Your task to perform on an android device: change the clock style Image 0: 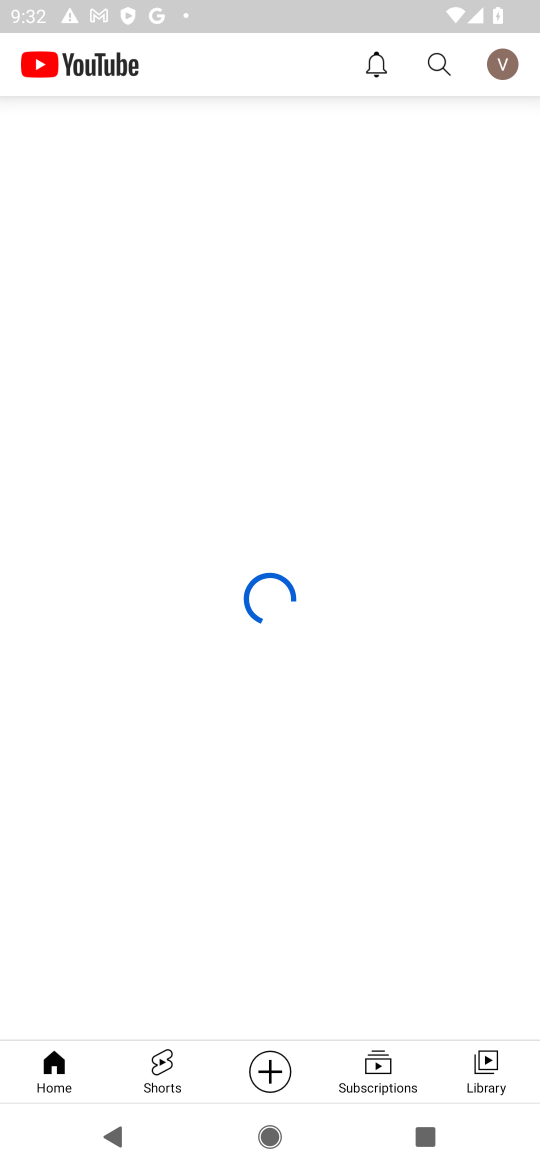
Step 0: press home button
Your task to perform on an android device: change the clock style Image 1: 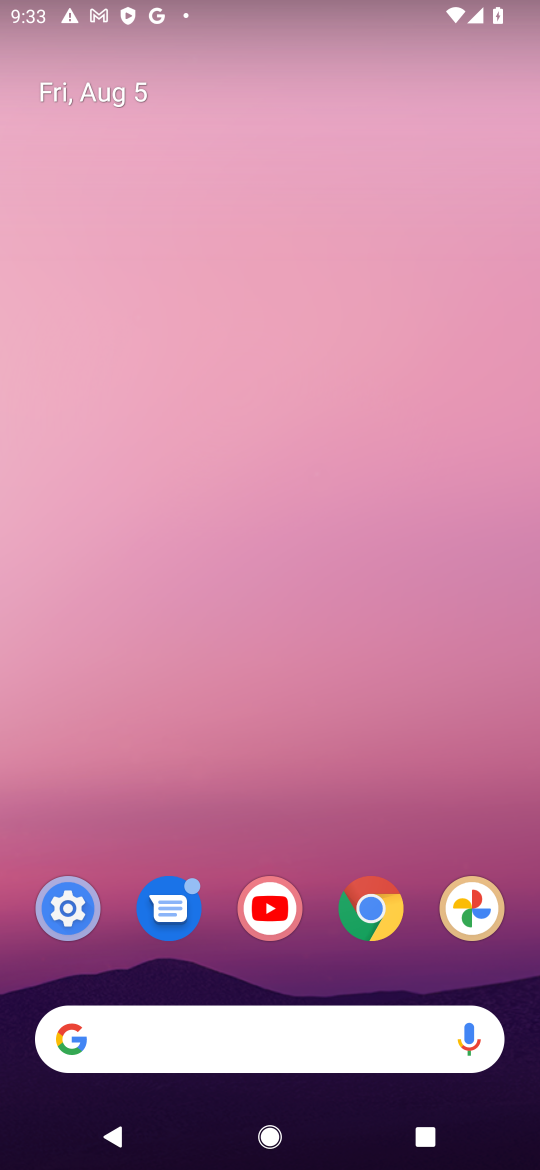
Step 1: drag from (293, 799) to (316, 9)
Your task to perform on an android device: change the clock style Image 2: 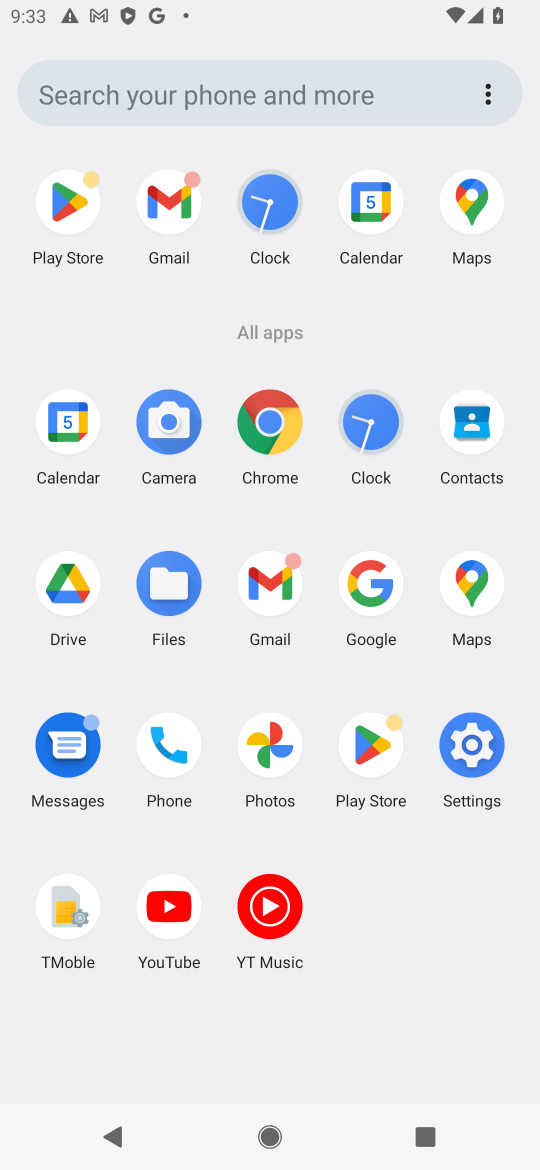
Step 2: click (371, 422)
Your task to perform on an android device: change the clock style Image 3: 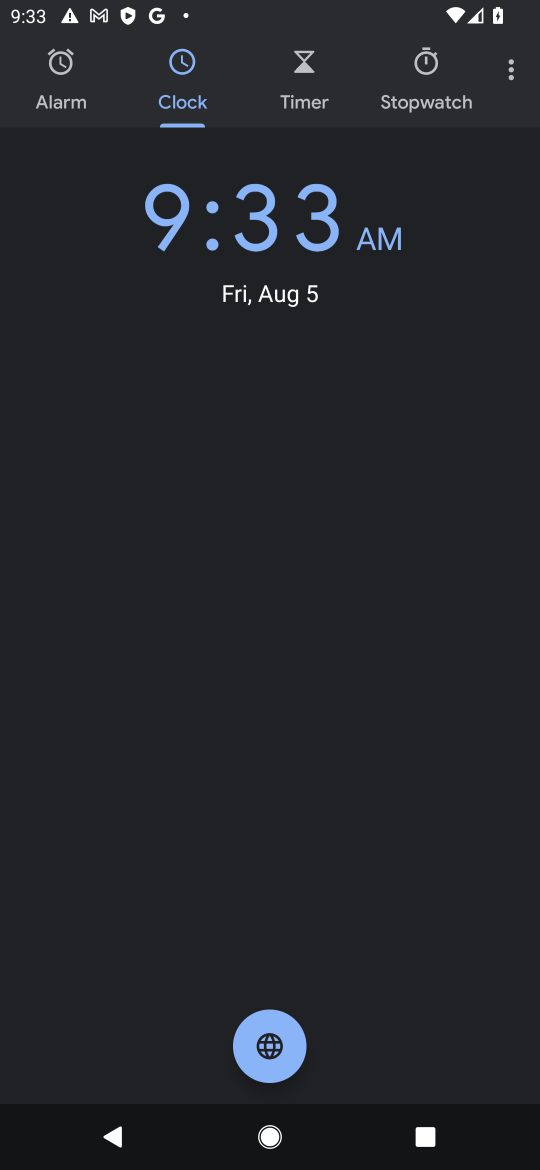
Step 3: click (515, 72)
Your task to perform on an android device: change the clock style Image 4: 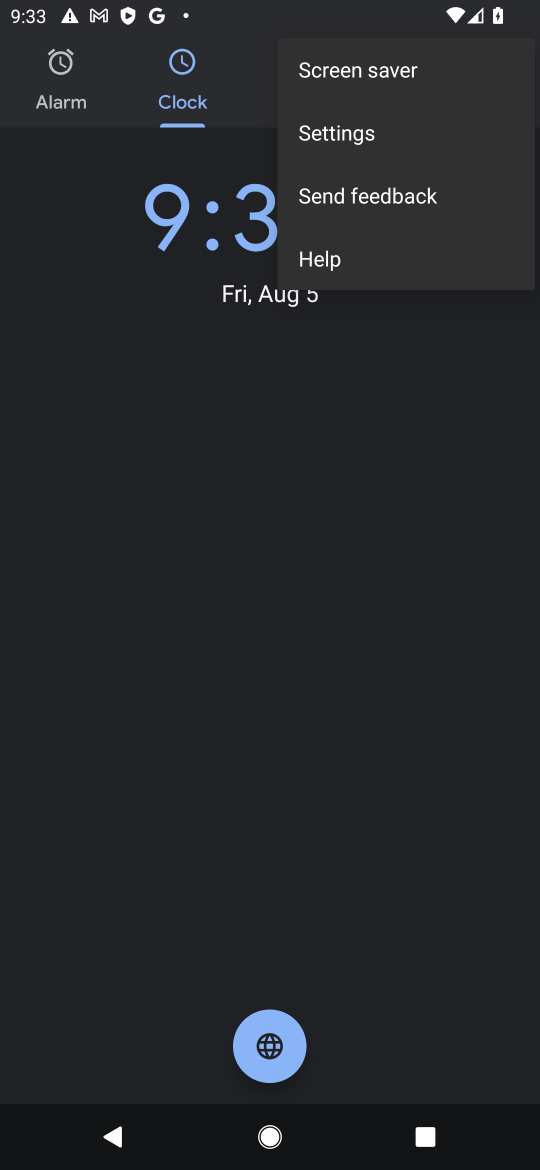
Step 4: click (352, 140)
Your task to perform on an android device: change the clock style Image 5: 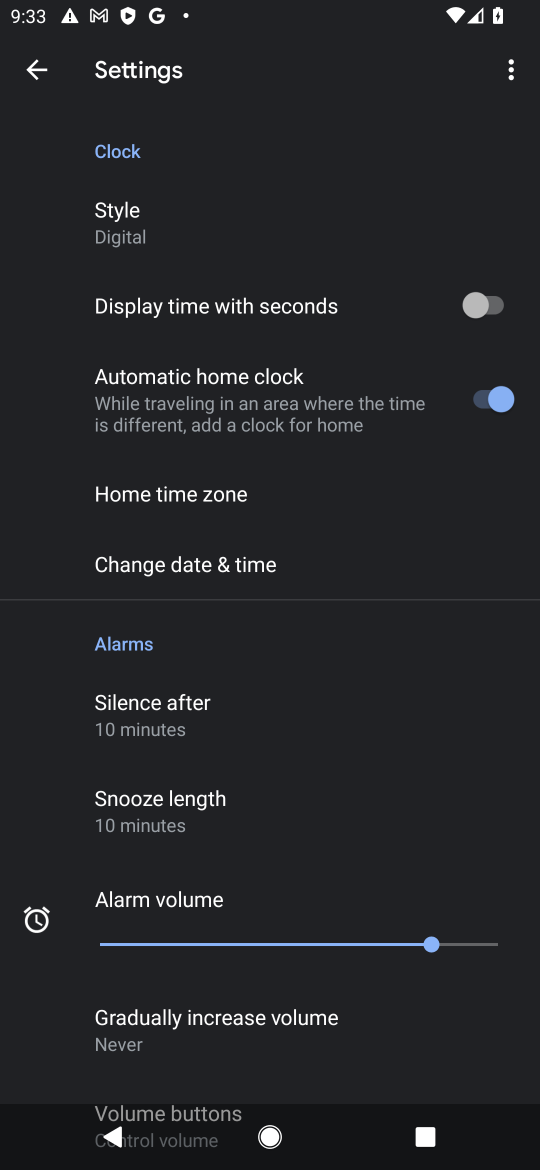
Step 5: click (150, 193)
Your task to perform on an android device: change the clock style Image 6: 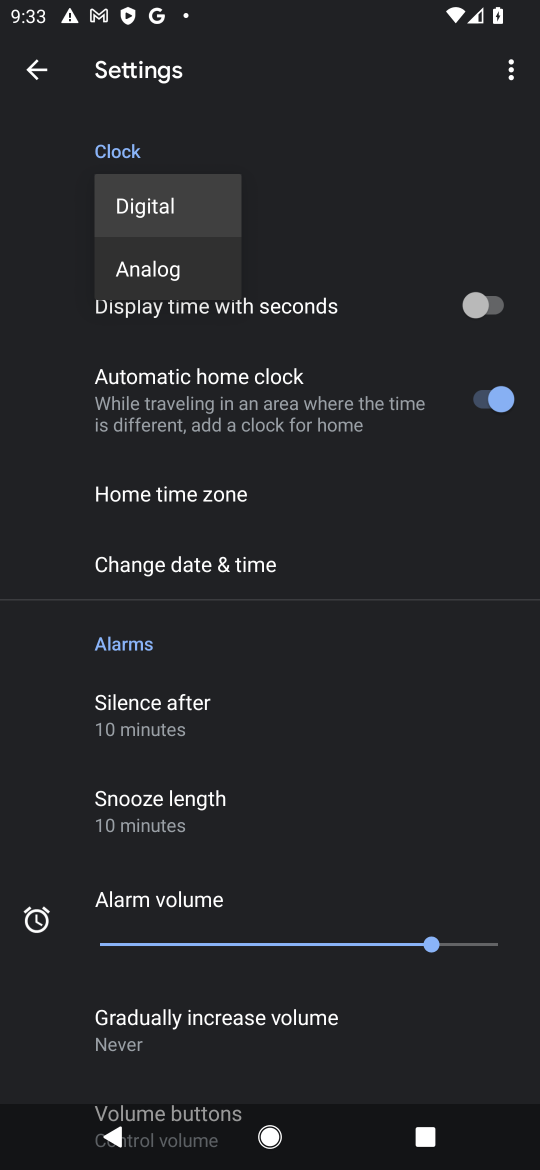
Step 6: click (167, 260)
Your task to perform on an android device: change the clock style Image 7: 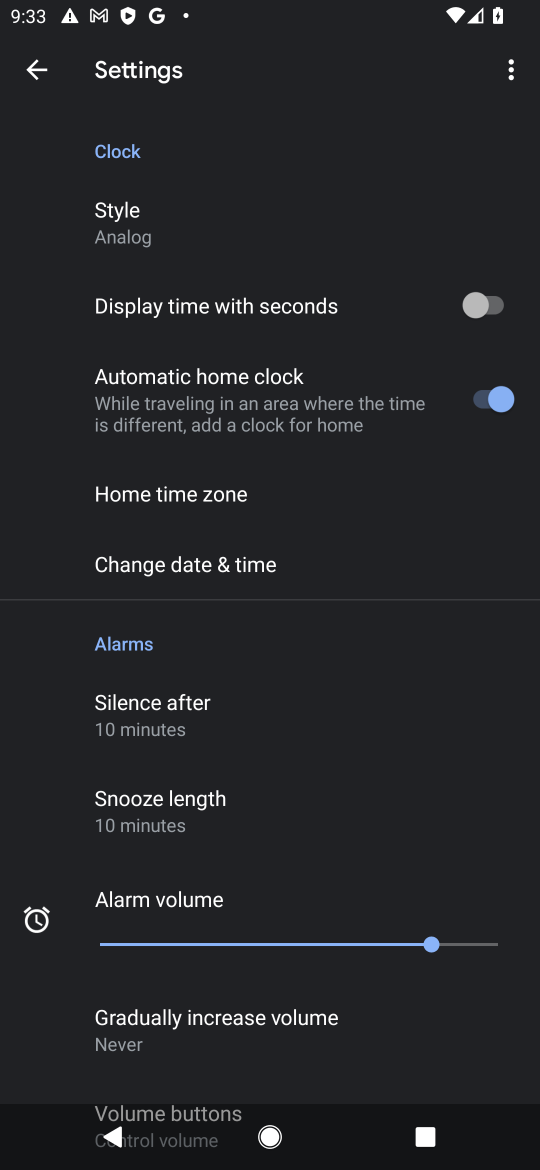
Step 7: task complete